Your task to perform on an android device: see sites visited before in the chrome app Image 0: 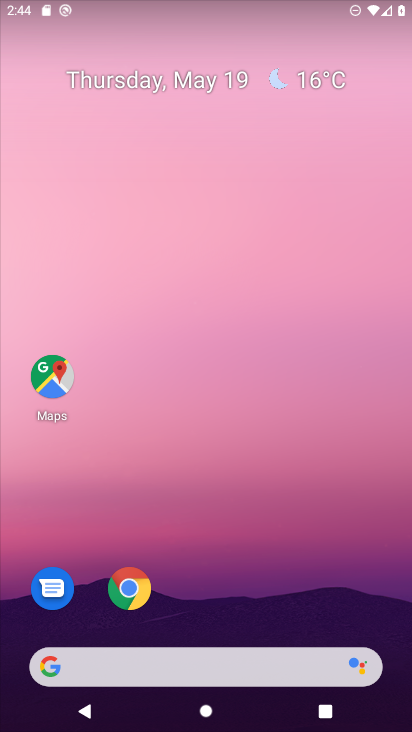
Step 0: click (123, 594)
Your task to perform on an android device: see sites visited before in the chrome app Image 1: 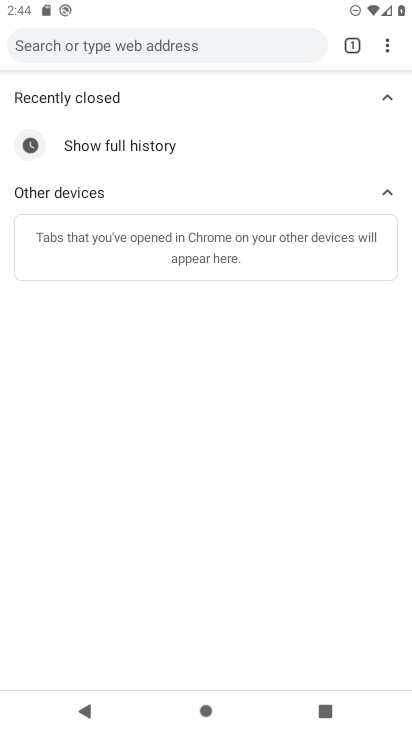
Step 1: click (391, 43)
Your task to perform on an android device: see sites visited before in the chrome app Image 2: 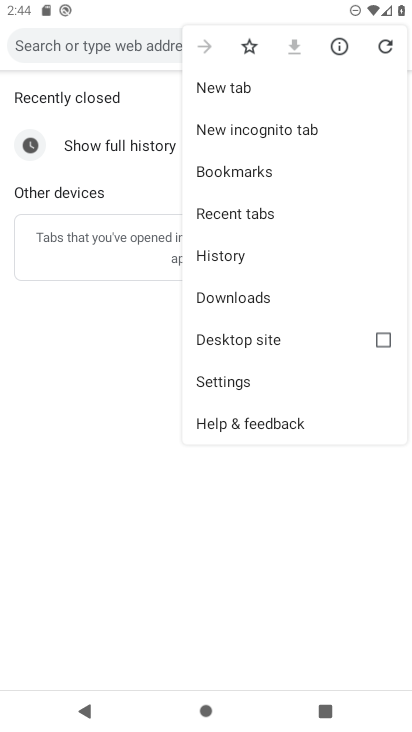
Step 2: click (206, 260)
Your task to perform on an android device: see sites visited before in the chrome app Image 3: 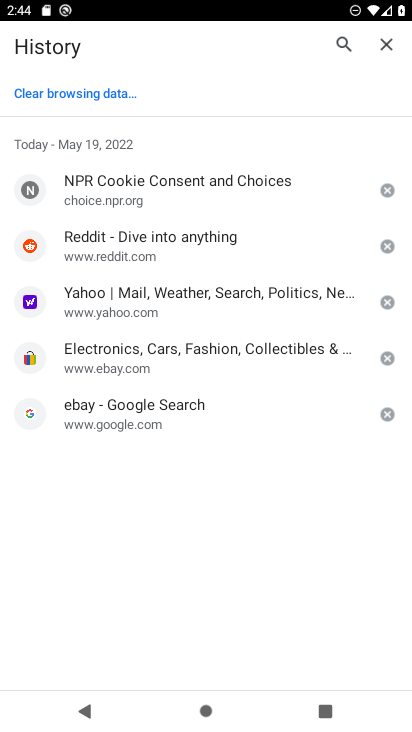
Step 3: task complete